Your task to perform on an android device: Open my contact list Image 0: 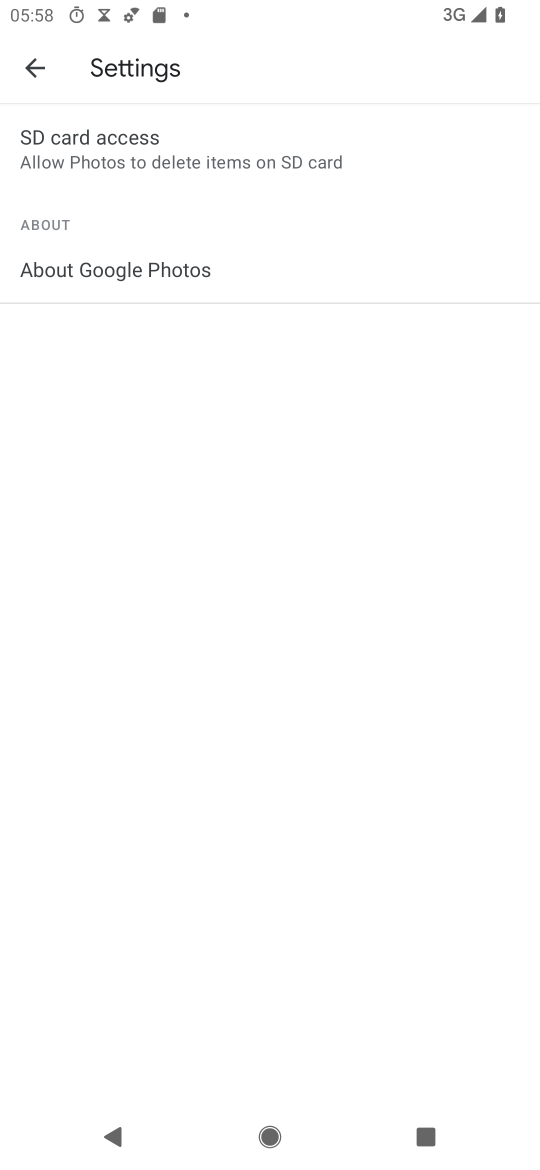
Step 0: press home button
Your task to perform on an android device: Open my contact list Image 1: 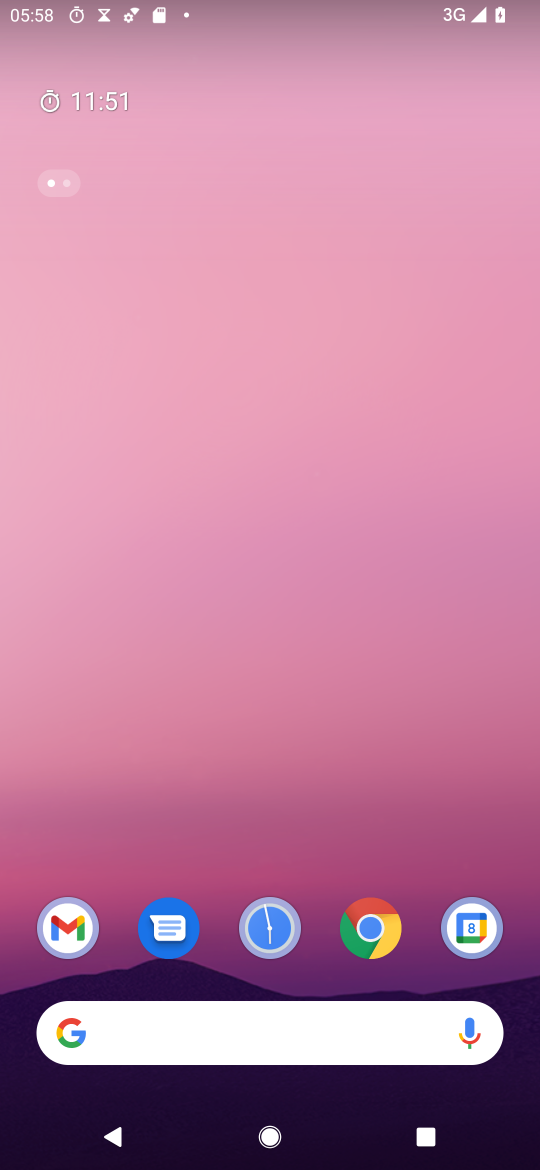
Step 1: drag from (243, 656) to (231, 119)
Your task to perform on an android device: Open my contact list Image 2: 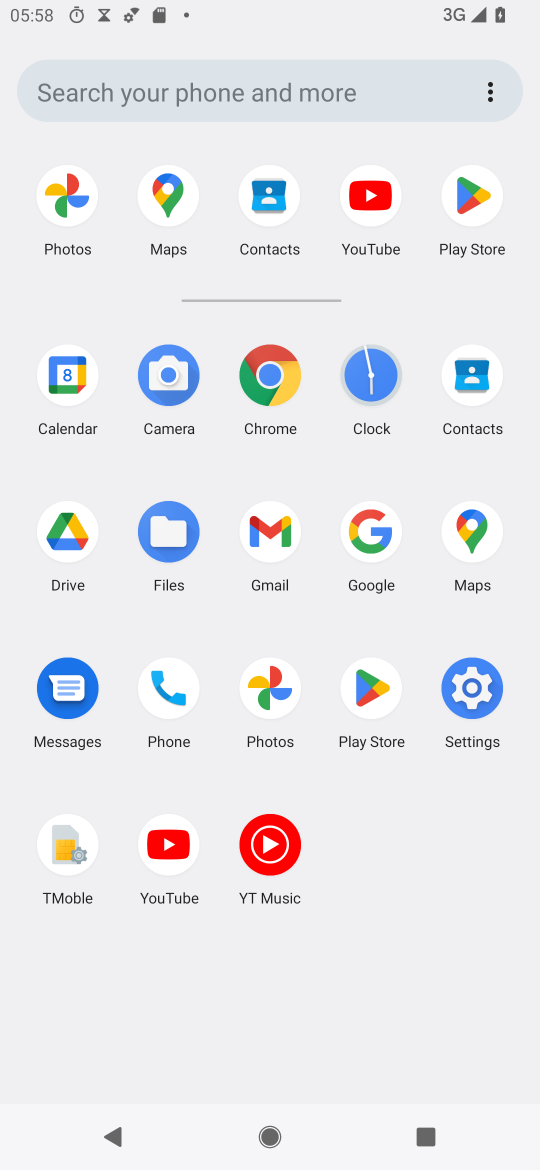
Step 2: click (476, 376)
Your task to perform on an android device: Open my contact list Image 3: 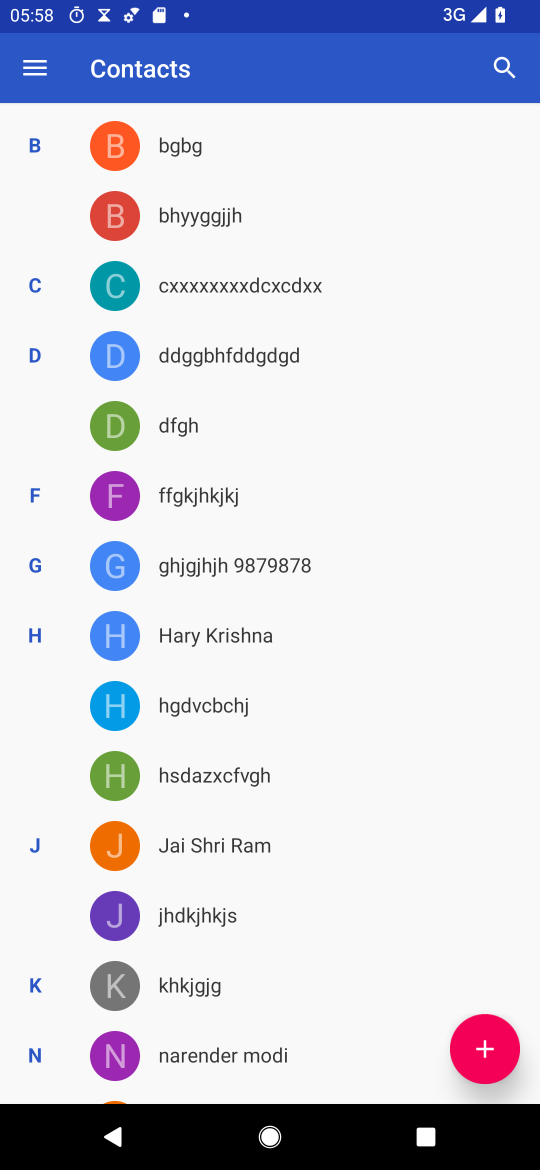
Step 3: task complete